Your task to perform on an android device: turn on javascript in the chrome app Image 0: 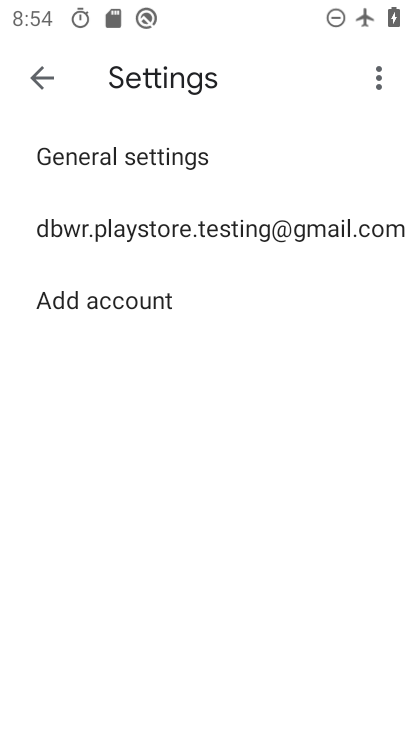
Step 0: press home button
Your task to perform on an android device: turn on javascript in the chrome app Image 1: 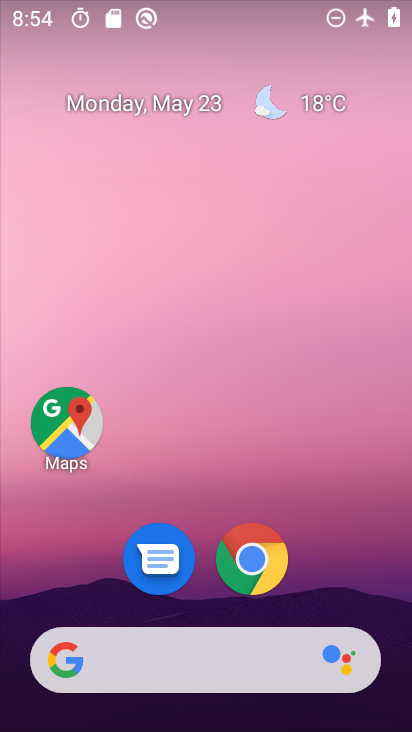
Step 1: drag from (396, 620) to (358, 31)
Your task to perform on an android device: turn on javascript in the chrome app Image 2: 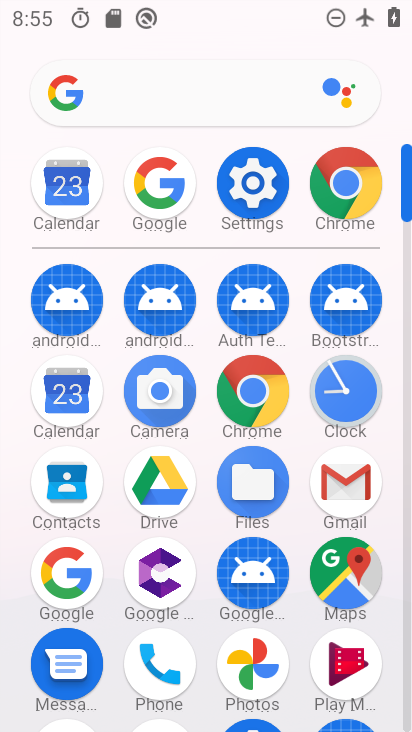
Step 2: click (265, 382)
Your task to perform on an android device: turn on javascript in the chrome app Image 3: 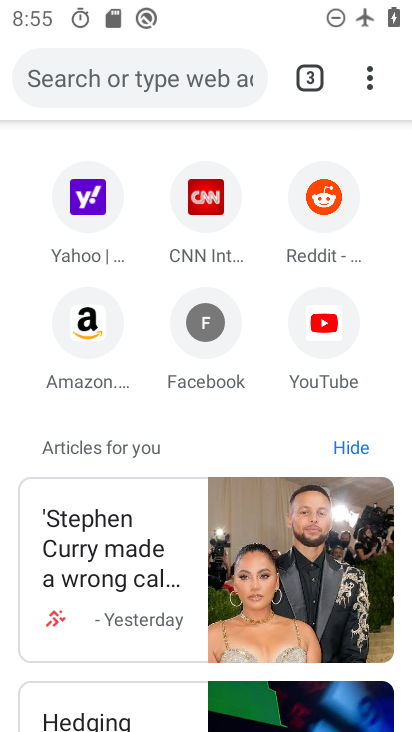
Step 3: click (367, 71)
Your task to perform on an android device: turn on javascript in the chrome app Image 4: 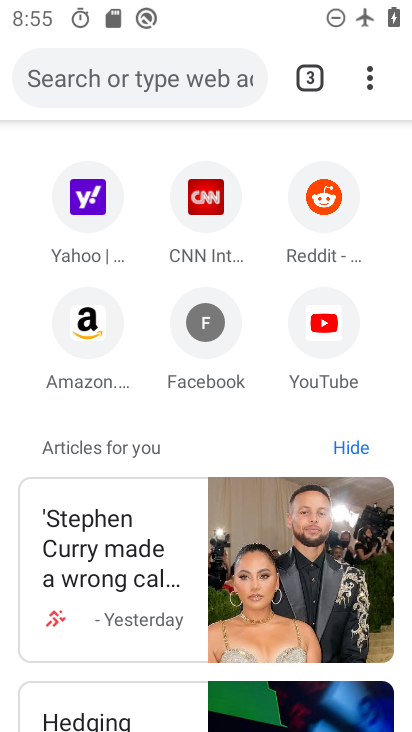
Step 4: click (376, 75)
Your task to perform on an android device: turn on javascript in the chrome app Image 5: 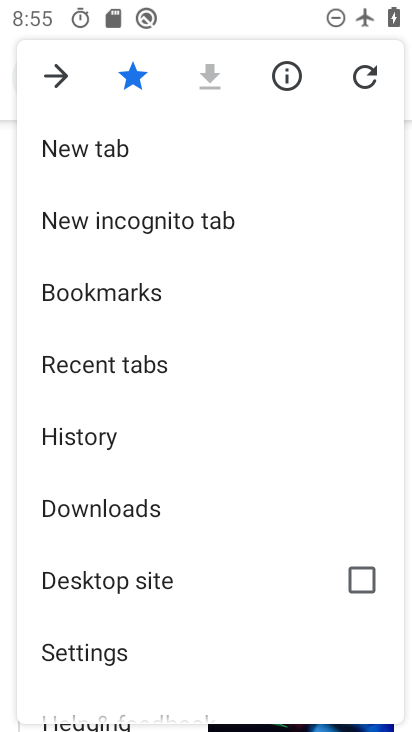
Step 5: click (134, 650)
Your task to perform on an android device: turn on javascript in the chrome app Image 6: 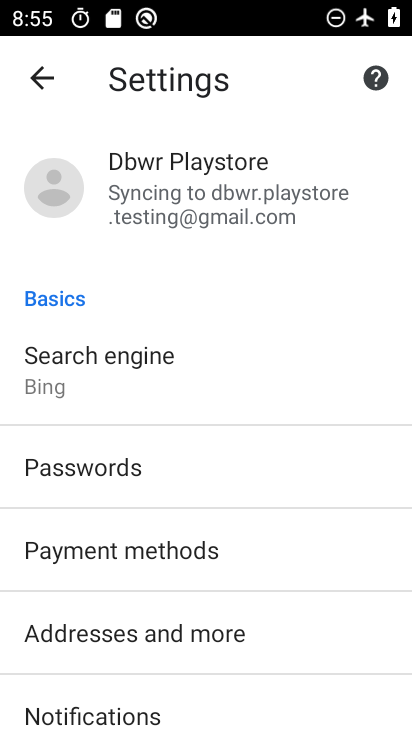
Step 6: drag from (134, 651) to (232, 92)
Your task to perform on an android device: turn on javascript in the chrome app Image 7: 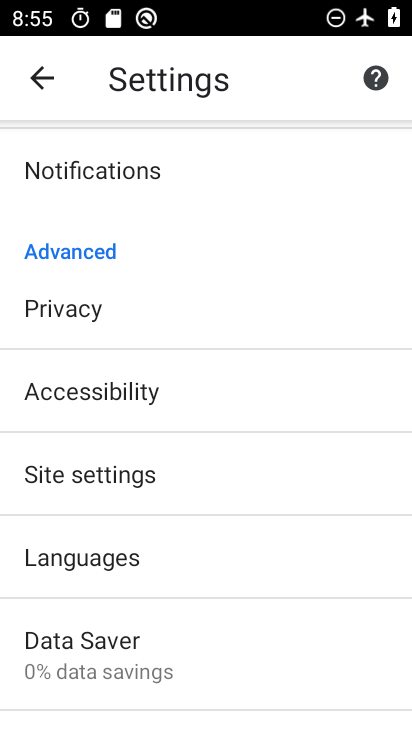
Step 7: click (218, 494)
Your task to perform on an android device: turn on javascript in the chrome app Image 8: 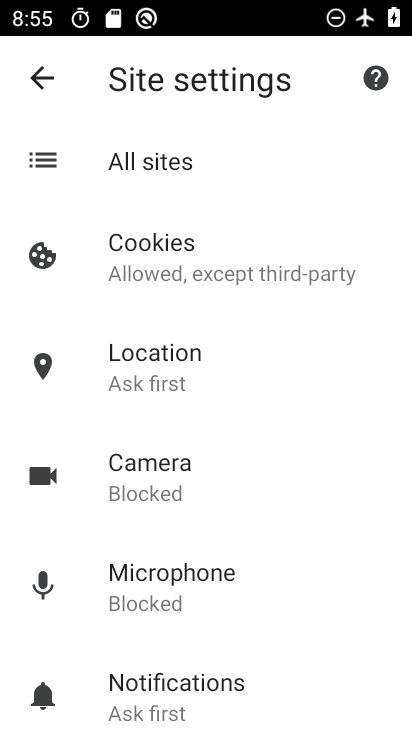
Step 8: drag from (213, 626) to (235, 333)
Your task to perform on an android device: turn on javascript in the chrome app Image 9: 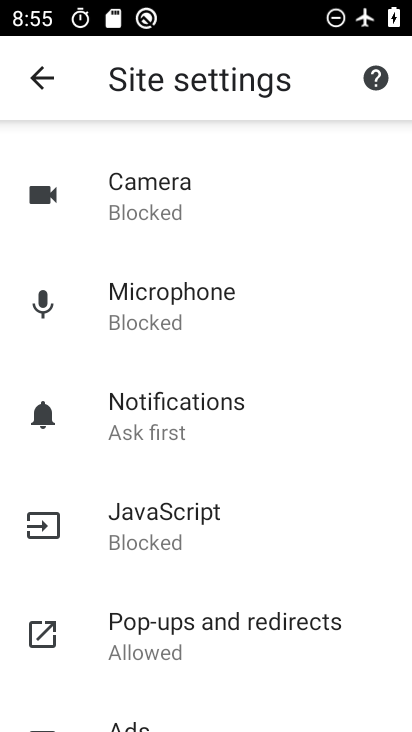
Step 9: click (213, 524)
Your task to perform on an android device: turn on javascript in the chrome app Image 10: 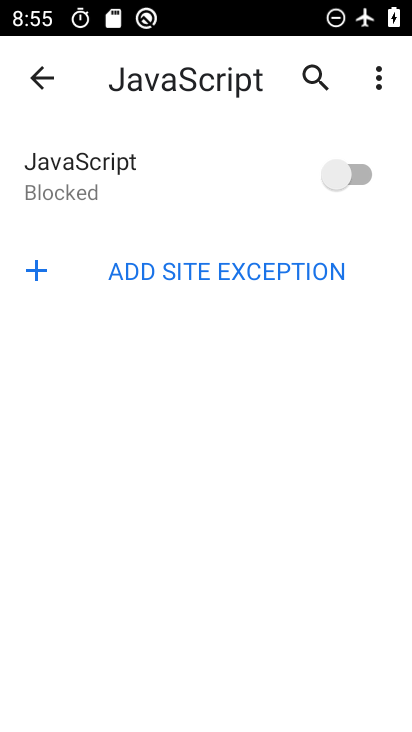
Step 10: click (317, 193)
Your task to perform on an android device: turn on javascript in the chrome app Image 11: 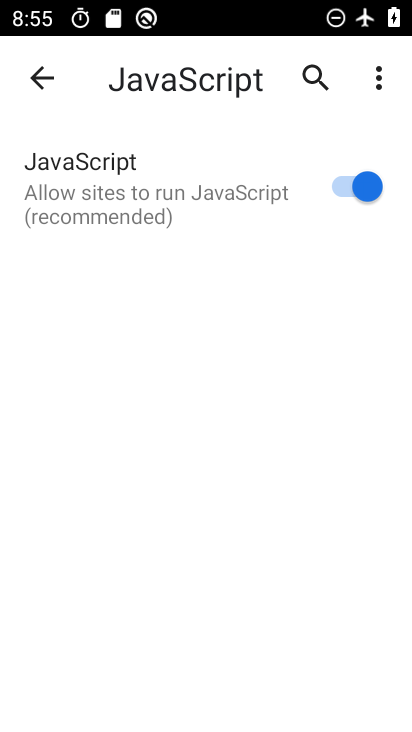
Step 11: task complete